Your task to perform on an android device: Open the map Image 0: 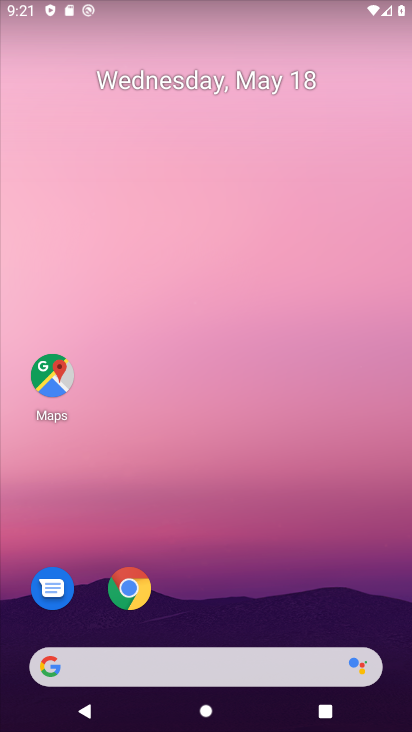
Step 0: drag from (278, 691) to (275, 219)
Your task to perform on an android device: Open the map Image 1: 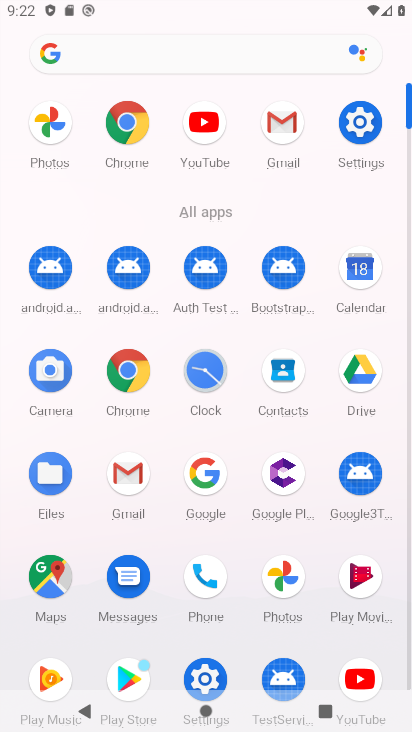
Step 1: click (45, 581)
Your task to perform on an android device: Open the map Image 2: 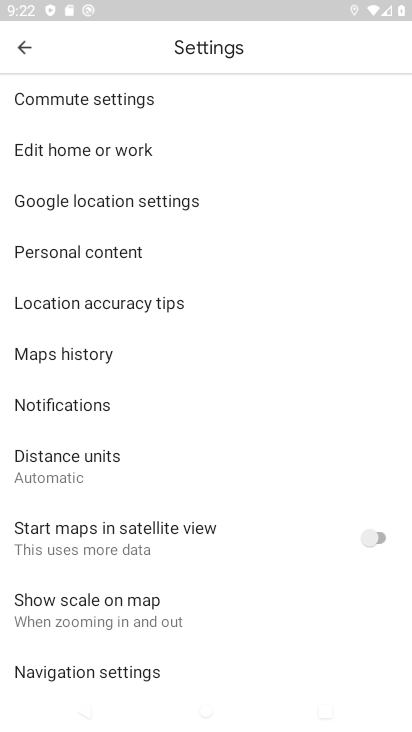
Step 2: click (33, 41)
Your task to perform on an android device: Open the map Image 3: 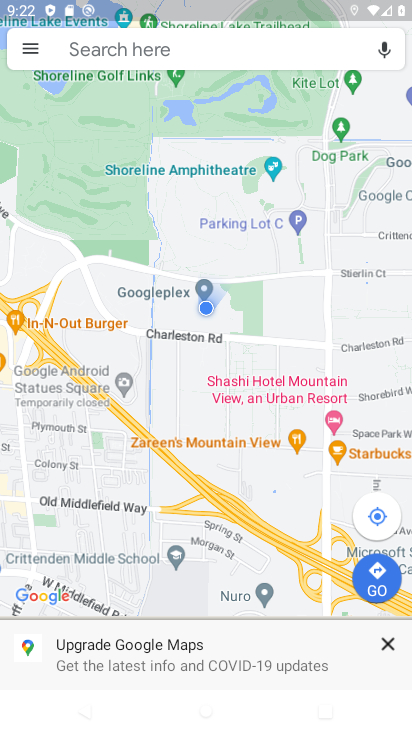
Step 3: click (377, 529)
Your task to perform on an android device: Open the map Image 4: 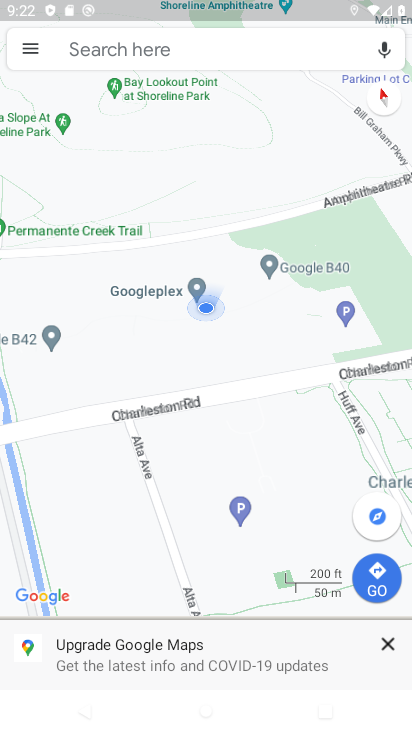
Step 4: task complete